Your task to perform on an android device: Go to battery settings Image 0: 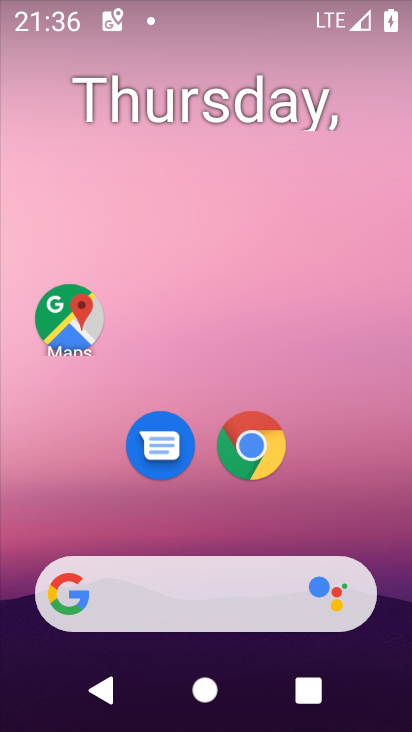
Step 0: drag from (216, 500) to (264, 91)
Your task to perform on an android device: Go to battery settings Image 1: 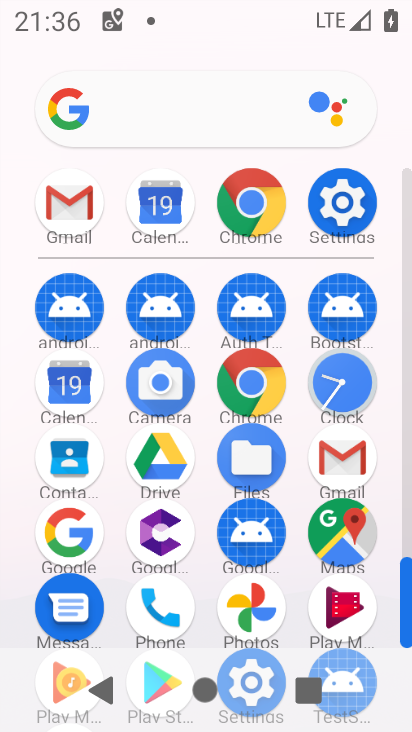
Step 1: click (354, 212)
Your task to perform on an android device: Go to battery settings Image 2: 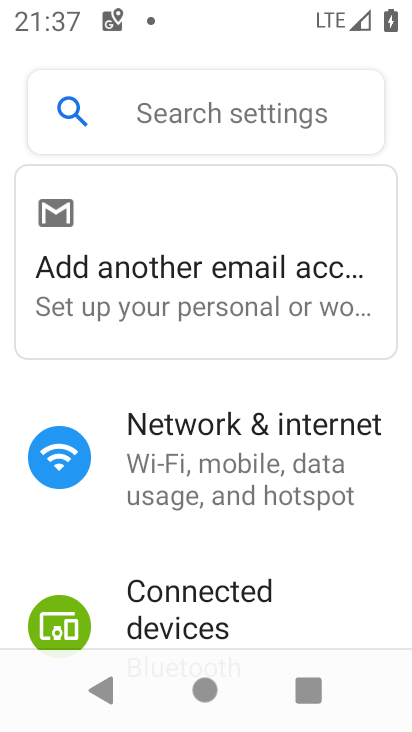
Step 2: drag from (234, 605) to (306, 100)
Your task to perform on an android device: Go to battery settings Image 3: 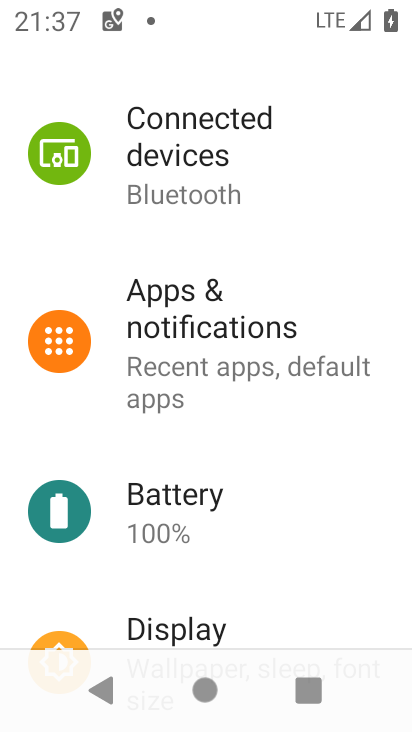
Step 3: click (203, 486)
Your task to perform on an android device: Go to battery settings Image 4: 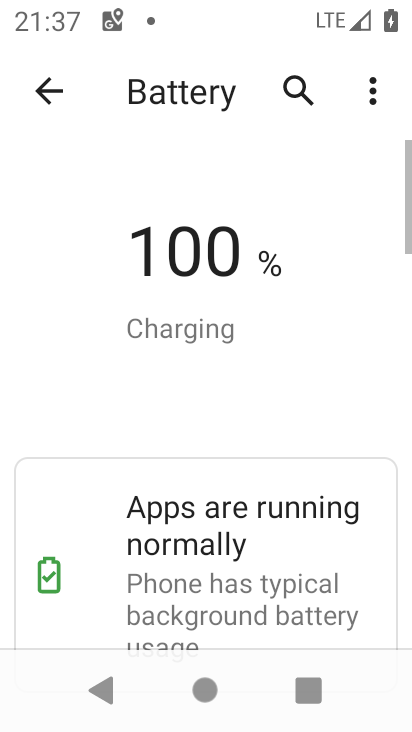
Step 4: task complete